Your task to perform on an android device: turn pop-ups off in chrome Image 0: 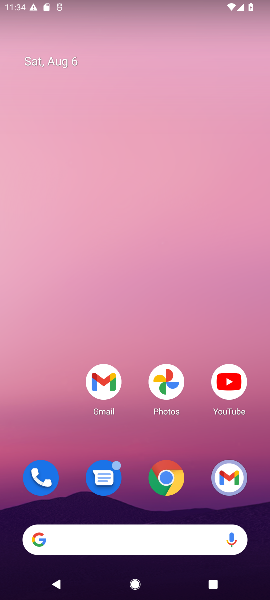
Step 0: click (164, 489)
Your task to perform on an android device: turn pop-ups off in chrome Image 1: 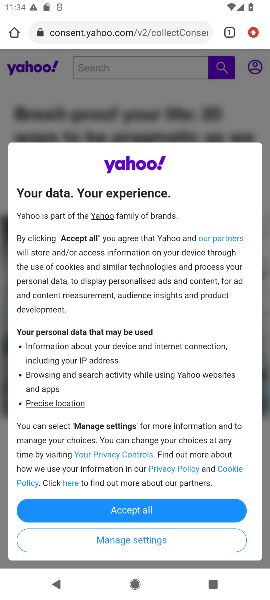
Step 1: click (258, 31)
Your task to perform on an android device: turn pop-ups off in chrome Image 2: 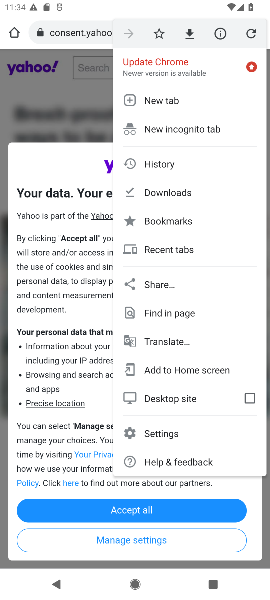
Step 2: click (167, 429)
Your task to perform on an android device: turn pop-ups off in chrome Image 3: 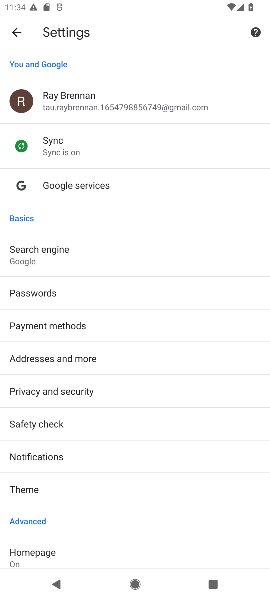
Step 3: drag from (38, 552) to (38, 248)
Your task to perform on an android device: turn pop-ups off in chrome Image 4: 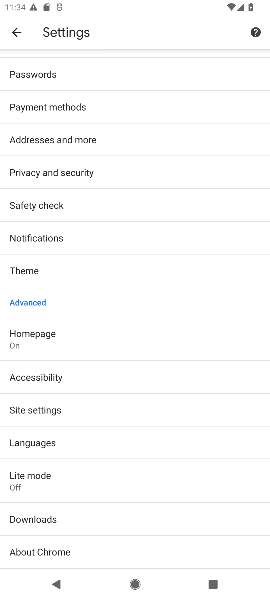
Step 4: click (24, 419)
Your task to perform on an android device: turn pop-ups off in chrome Image 5: 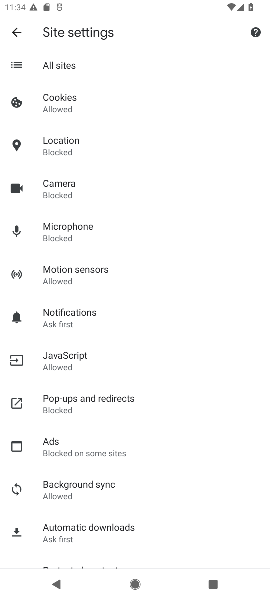
Step 5: click (81, 404)
Your task to perform on an android device: turn pop-ups off in chrome Image 6: 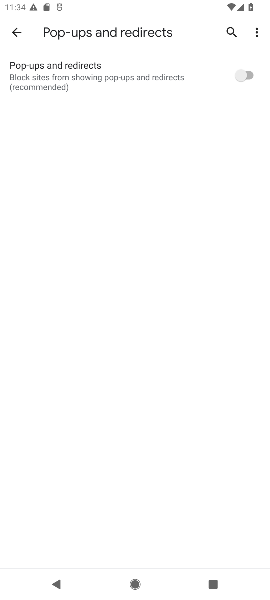
Step 6: task complete